Your task to perform on an android device: turn notification dots off Image 0: 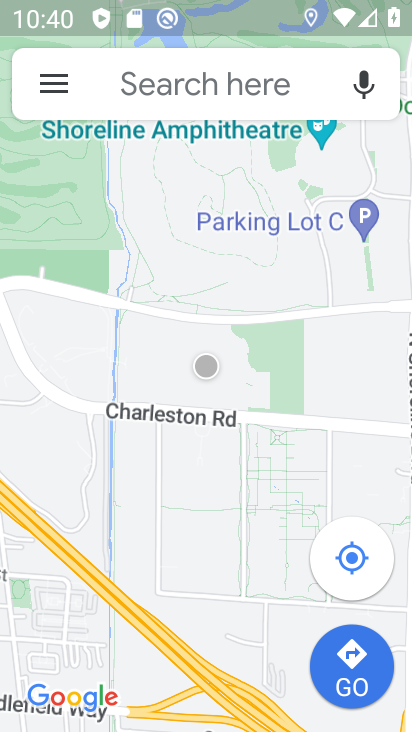
Step 0: press home button
Your task to perform on an android device: turn notification dots off Image 1: 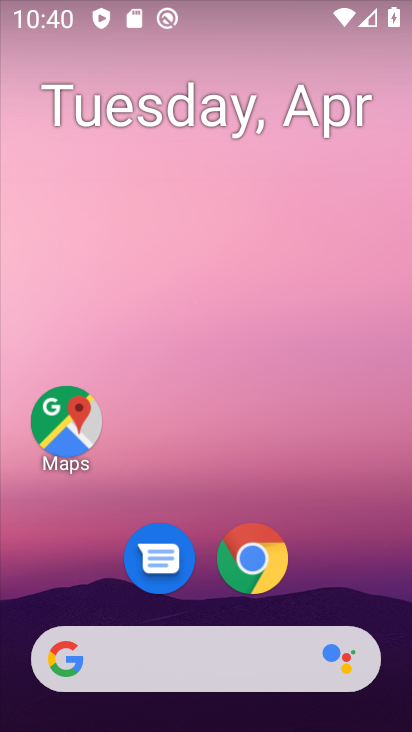
Step 1: drag from (332, 586) to (403, 60)
Your task to perform on an android device: turn notification dots off Image 2: 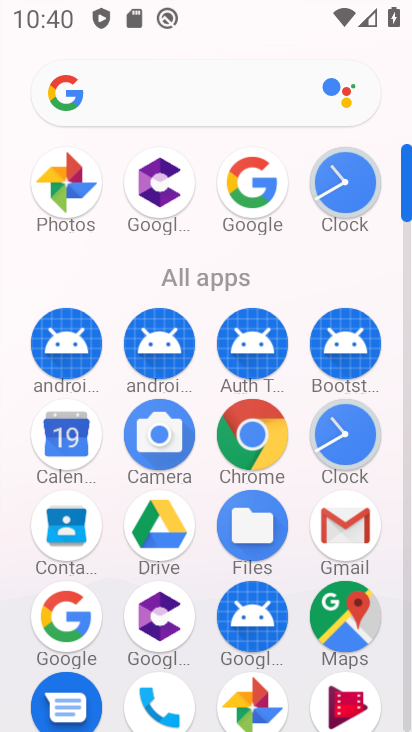
Step 2: drag from (311, 274) to (304, 37)
Your task to perform on an android device: turn notification dots off Image 3: 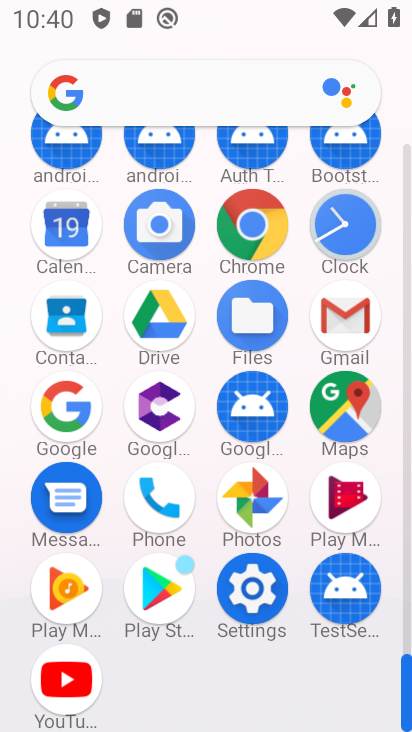
Step 3: click (261, 587)
Your task to perform on an android device: turn notification dots off Image 4: 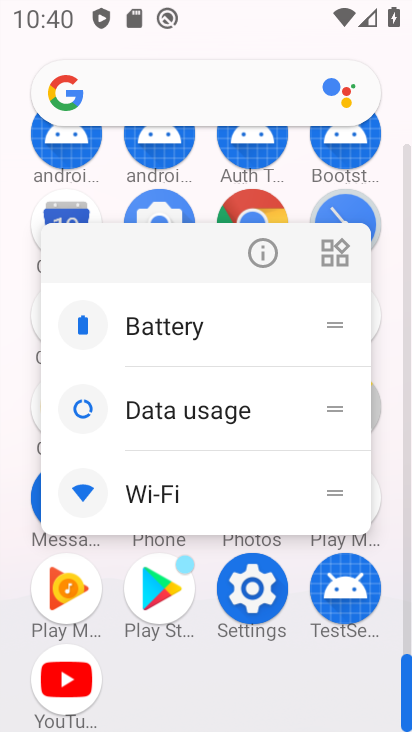
Step 4: click (263, 595)
Your task to perform on an android device: turn notification dots off Image 5: 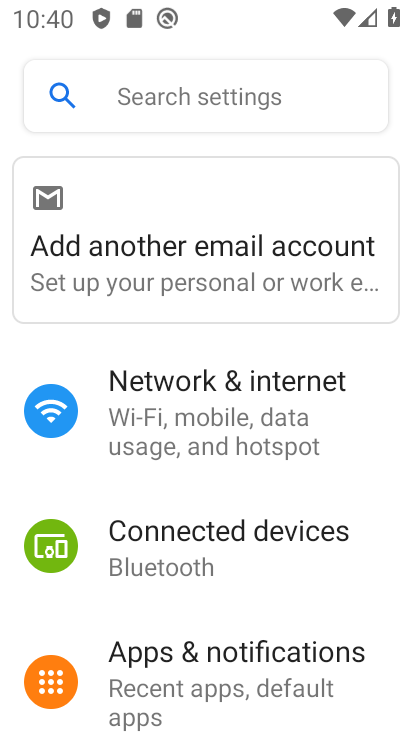
Step 5: click (230, 666)
Your task to perform on an android device: turn notification dots off Image 6: 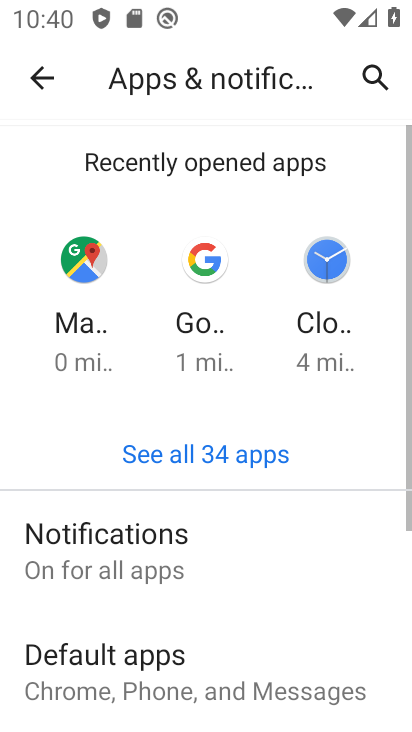
Step 6: click (112, 528)
Your task to perform on an android device: turn notification dots off Image 7: 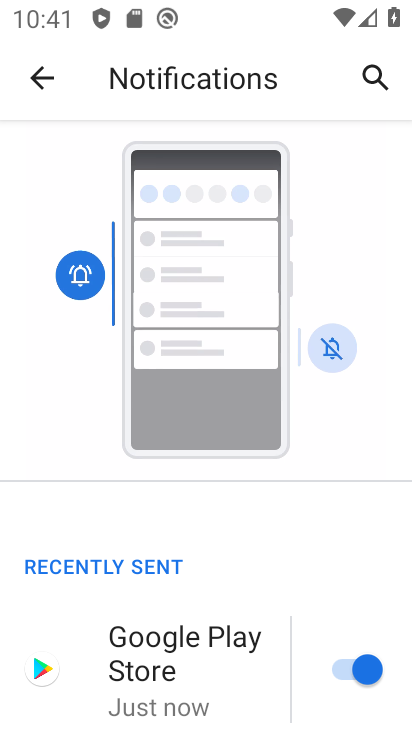
Step 7: drag from (337, 557) to (410, 219)
Your task to perform on an android device: turn notification dots off Image 8: 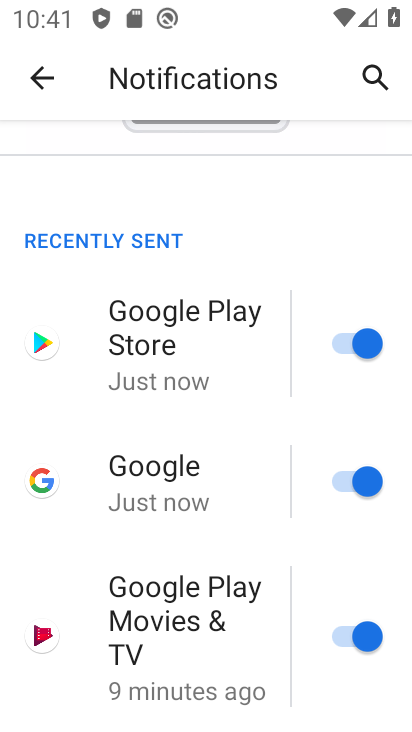
Step 8: drag from (269, 652) to (289, 236)
Your task to perform on an android device: turn notification dots off Image 9: 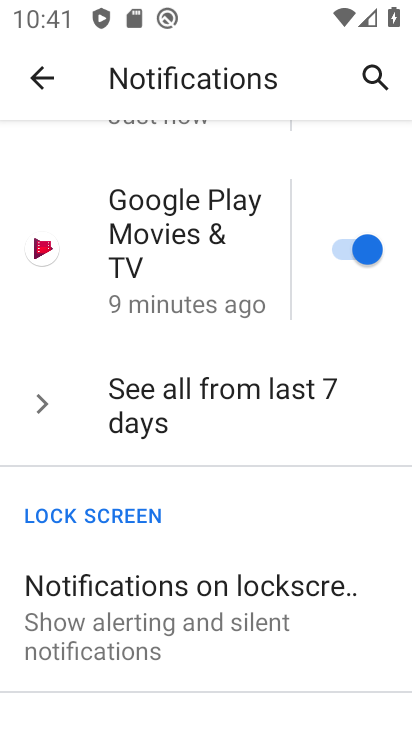
Step 9: drag from (281, 637) to (319, 253)
Your task to perform on an android device: turn notification dots off Image 10: 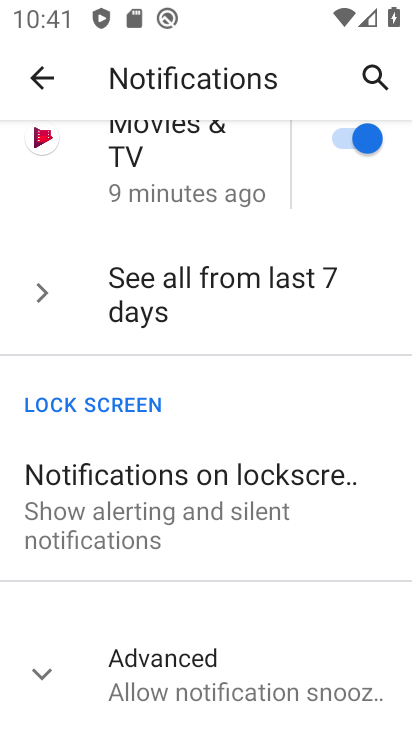
Step 10: click (216, 667)
Your task to perform on an android device: turn notification dots off Image 11: 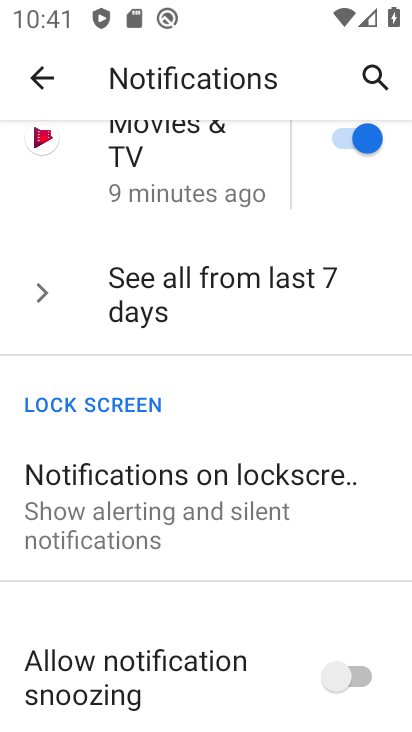
Step 11: drag from (318, 589) to (346, 207)
Your task to perform on an android device: turn notification dots off Image 12: 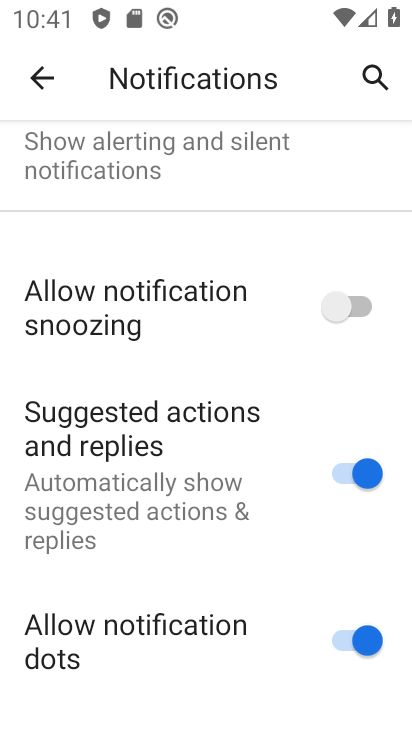
Step 12: click (337, 641)
Your task to perform on an android device: turn notification dots off Image 13: 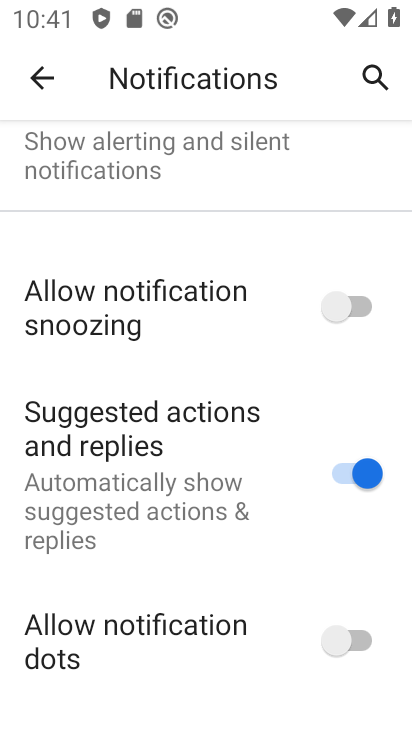
Step 13: task complete